Your task to perform on an android device: open app "Booking.com: Hotels and more" (install if not already installed) and go to login screen Image 0: 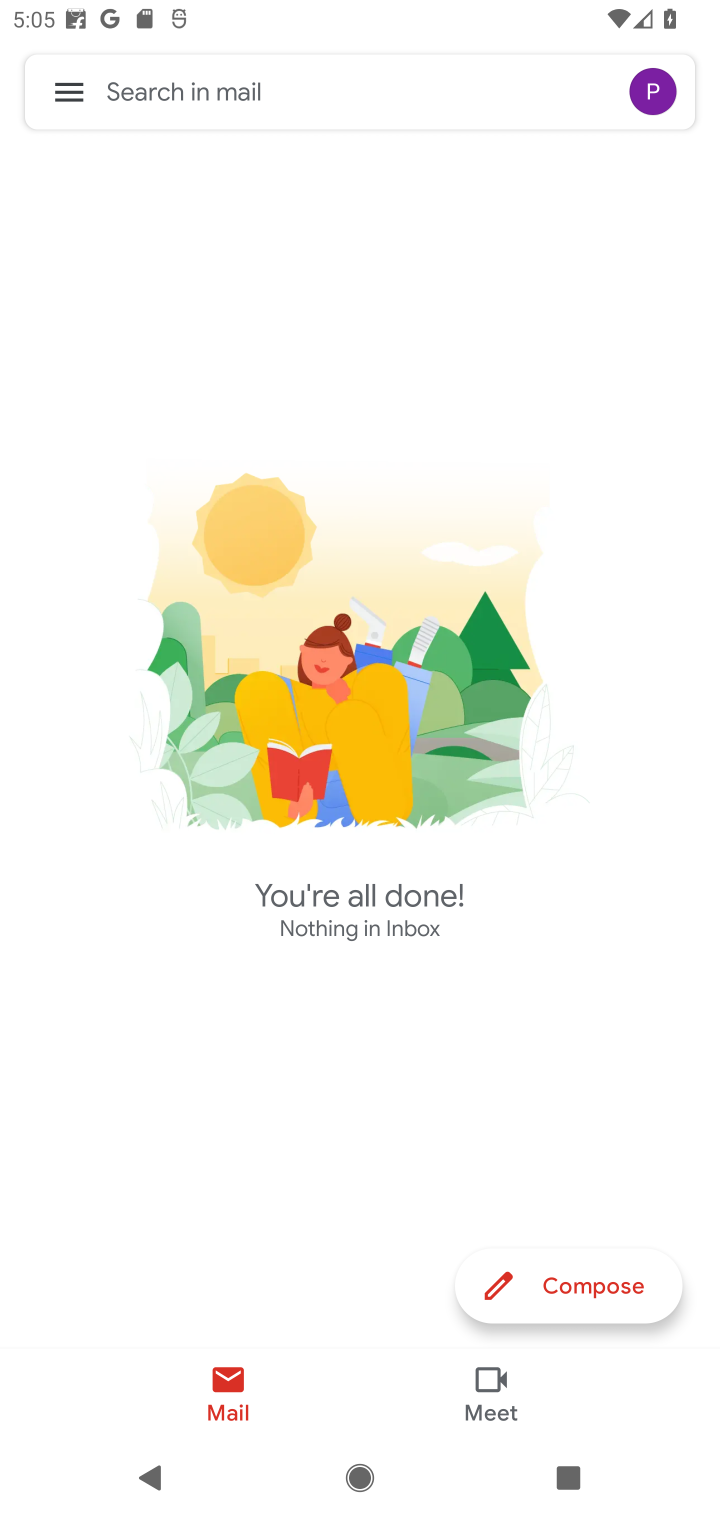
Step 0: press home button
Your task to perform on an android device: open app "Booking.com: Hotels and more" (install if not already installed) and go to login screen Image 1: 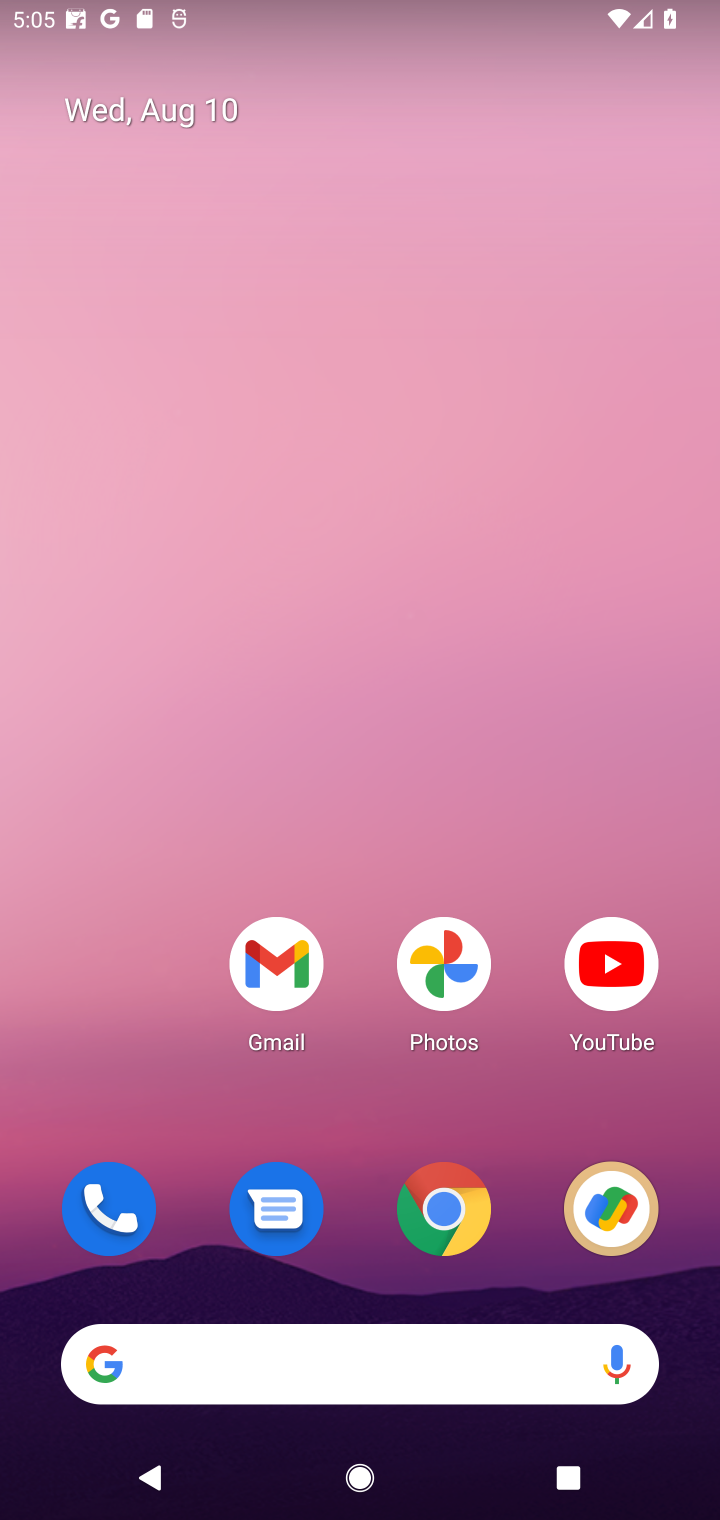
Step 1: drag from (338, 1294) to (338, 80)
Your task to perform on an android device: open app "Booking.com: Hotels and more" (install if not already installed) and go to login screen Image 2: 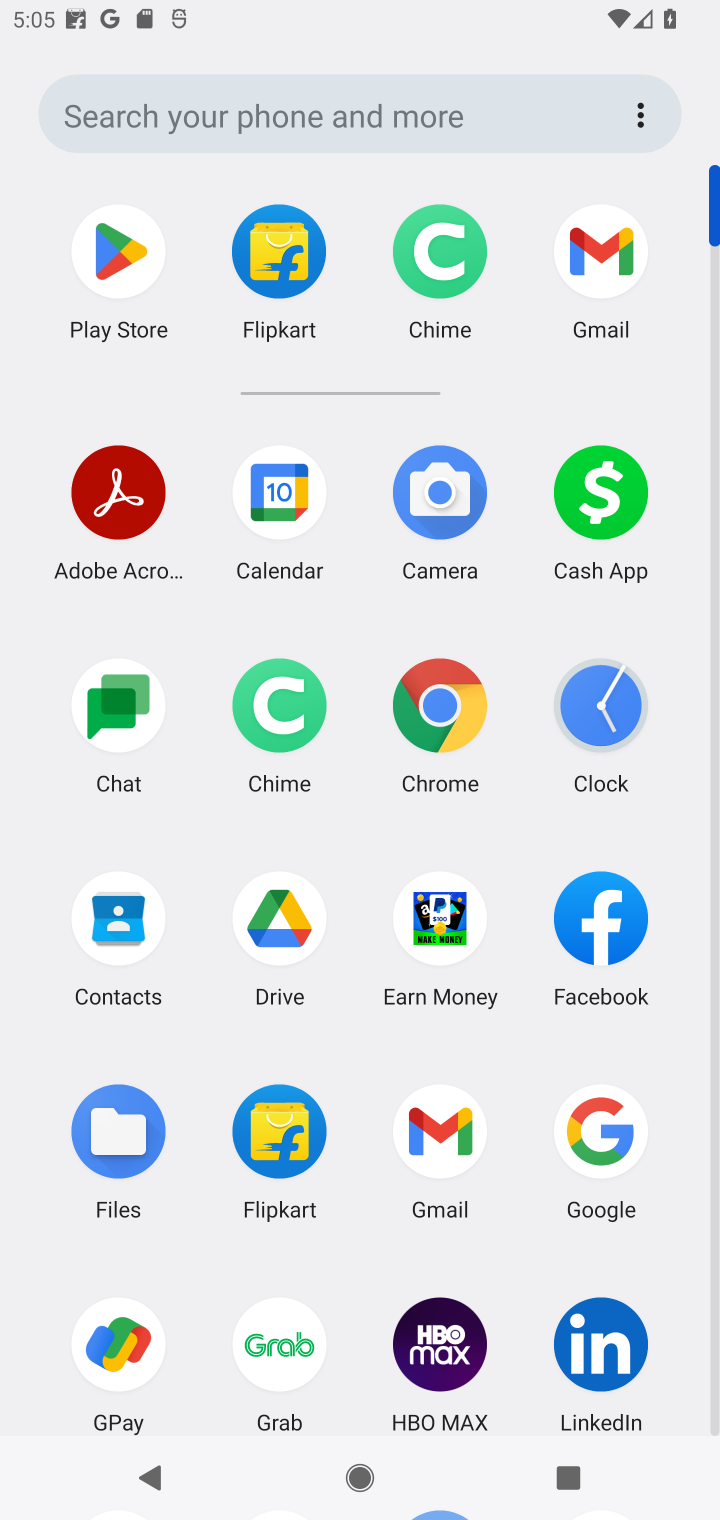
Step 2: click (140, 228)
Your task to perform on an android device: open app "Booking.com: Hotels and more" (install if not already installed) and go to login screen Image 3: 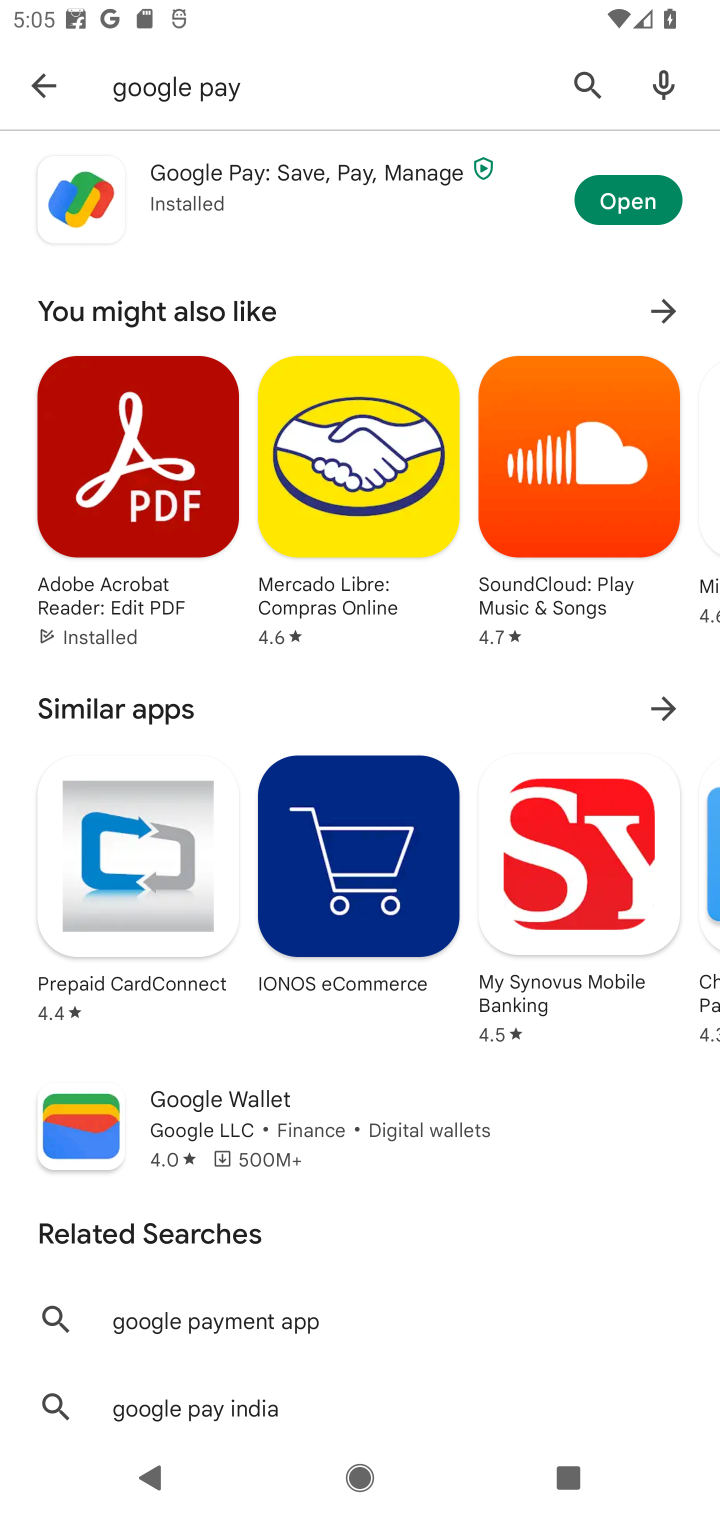
Step 3: click (581, 74)
Your task to perform on an android device: open app "Booking.com: Hotels and more" (install if not already installed) and go to login screen Image 4: 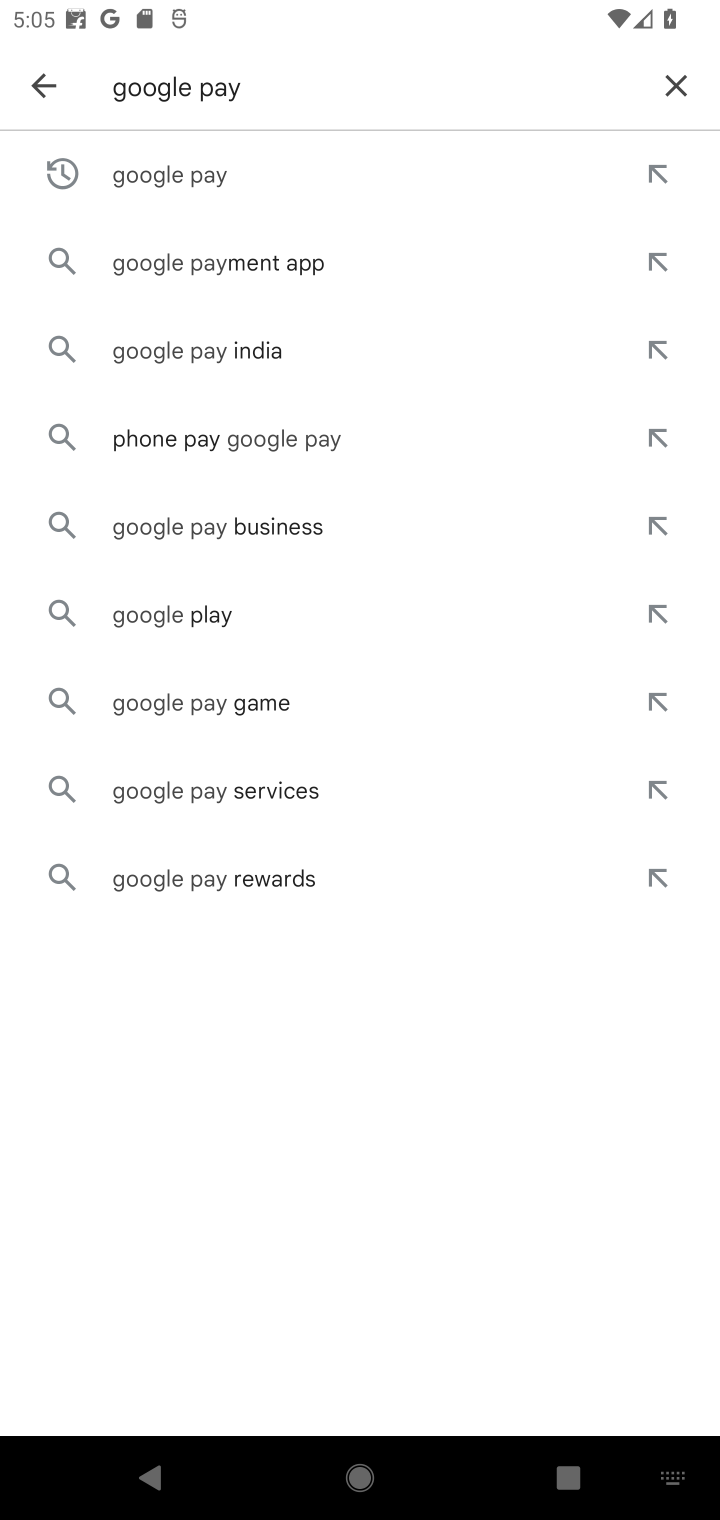
Step 4: click (668, 109)
Your task to perform on an android device: open app "Booking.com: Hotels and more" (install if not already installed) and go to login screen Image 5: 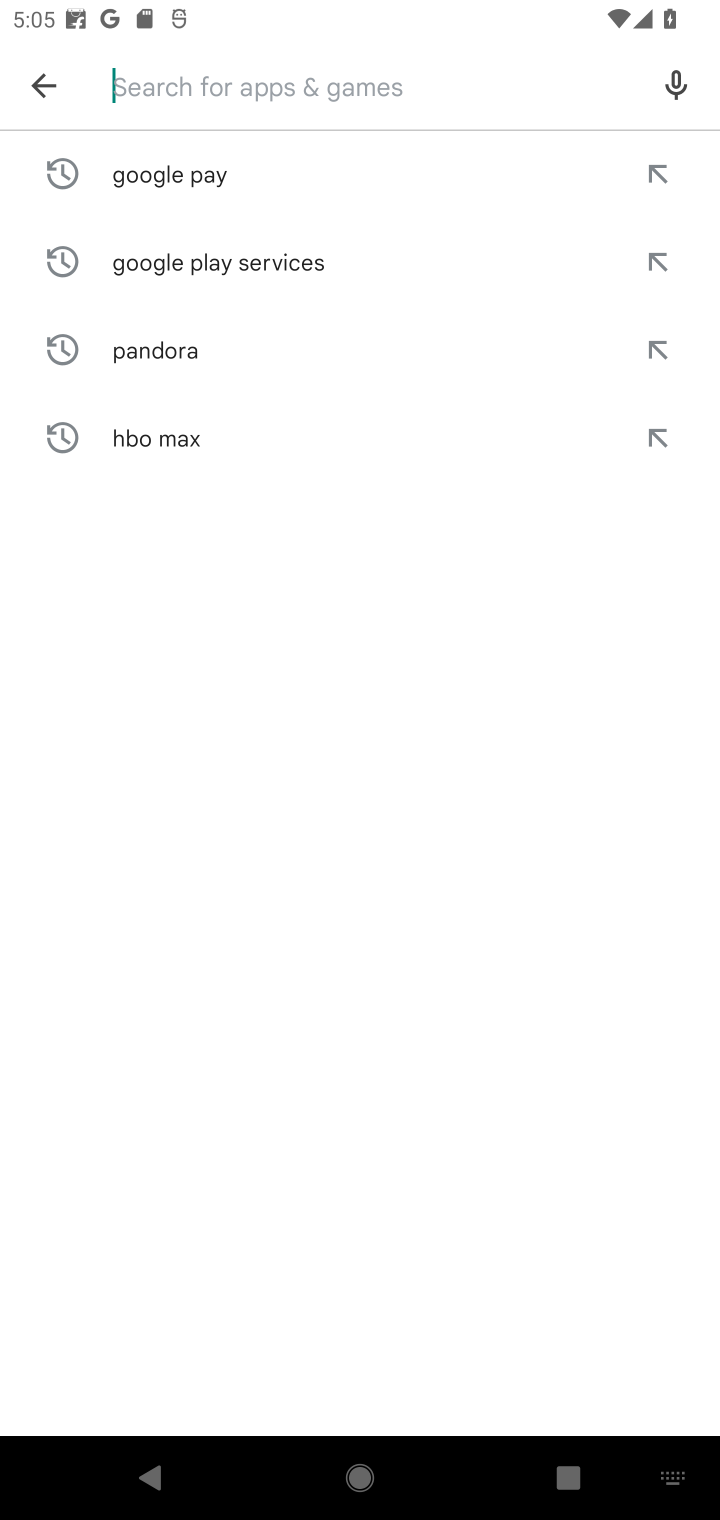
Step 5: type "booking"
Your task to perform on an android device: open app "Booking.com: Hotels and more" (install if not already installed) and go to login screen Image 6: 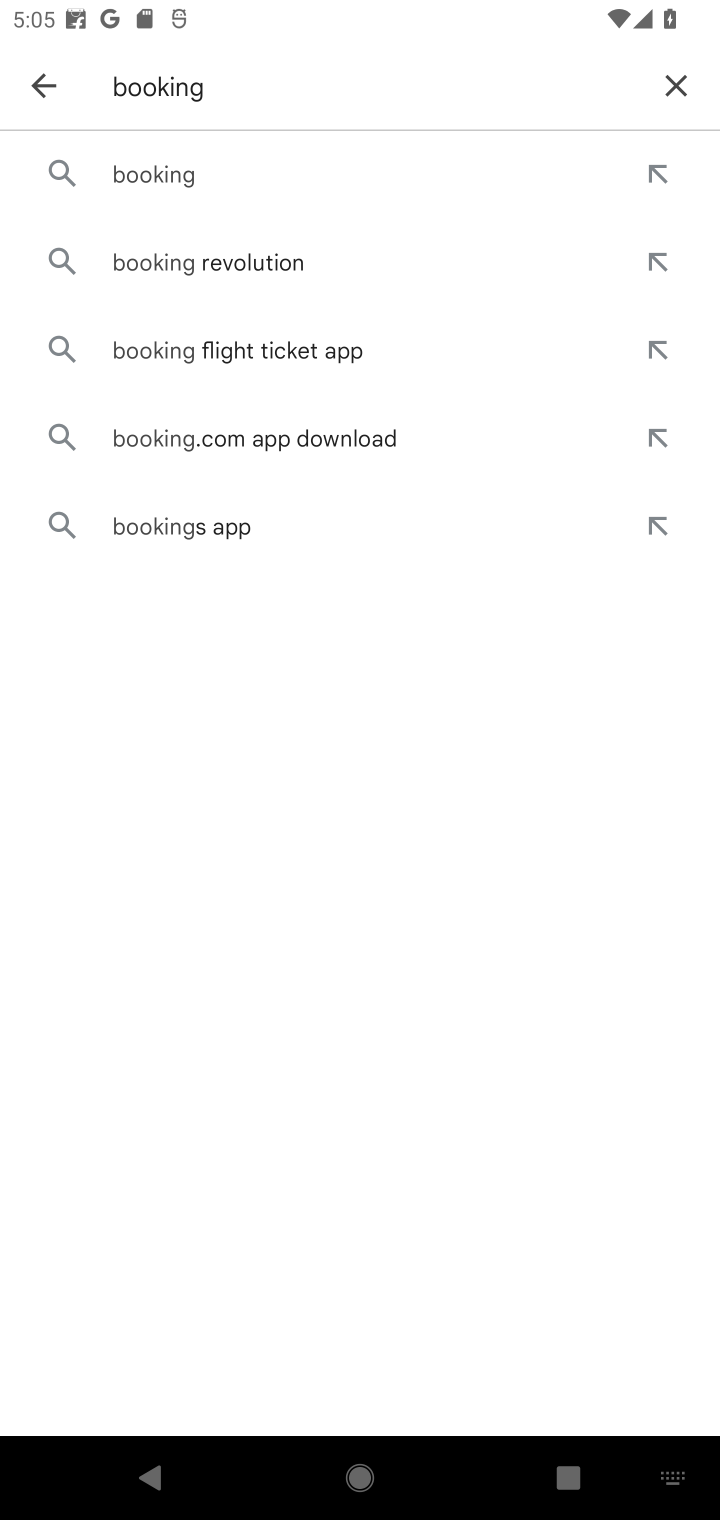
Step 6: click (214, 193)
Your task to perform on an android device: open app "Booking.com: Hotels and more" (install if not already installed) and go to login screen Image 7: 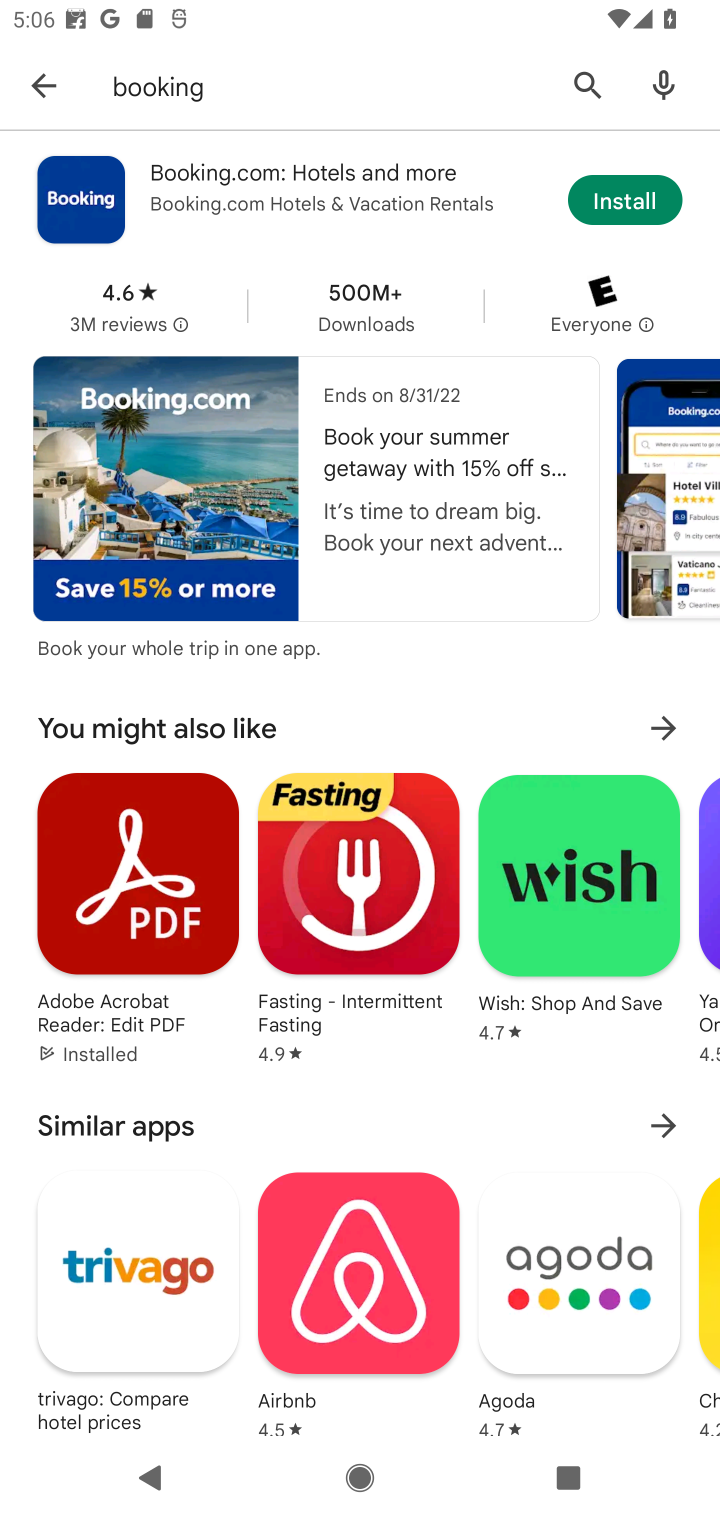
Step 7: click (618, 228)
Your task to perform on an android device: open app "Booking.com: Hotels and more" (install if not already installed) and go to login screen Image 8: 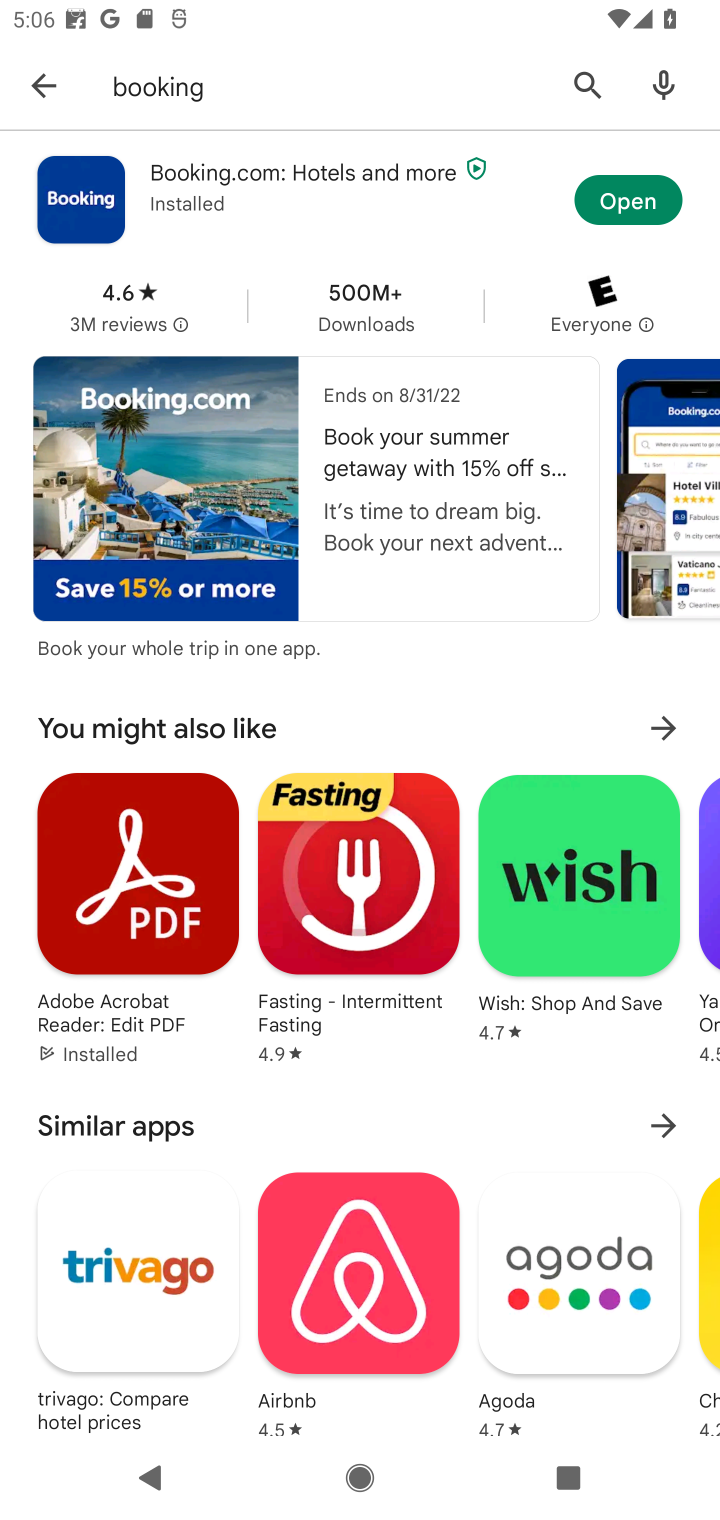
Step 8: click (618, 194)
Your task to perform on an android device: open app "Booking.com: Hotels and more" (install if not already installed) and go to login screen Image 9: 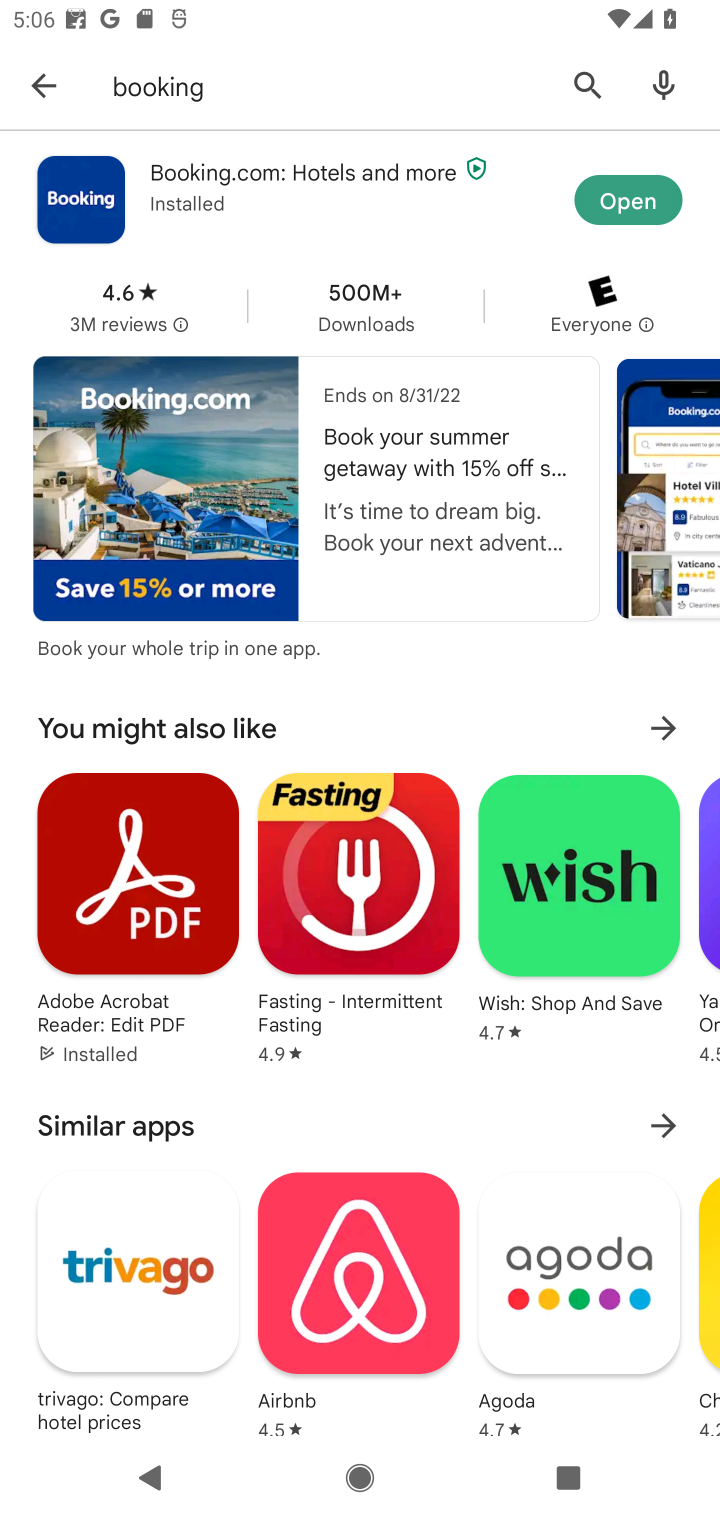
Step 9: task complete